Your task to perform on an android device: What is the news today? Image 0: 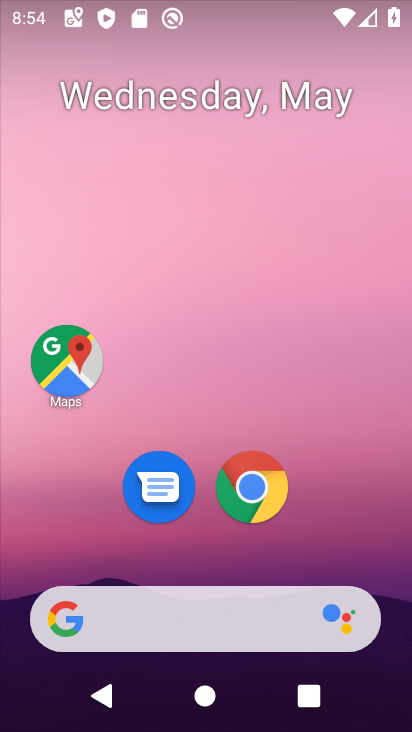
Step 0: click (233, 612)
Your task to perform on an android device: What is the news today? Image 1: 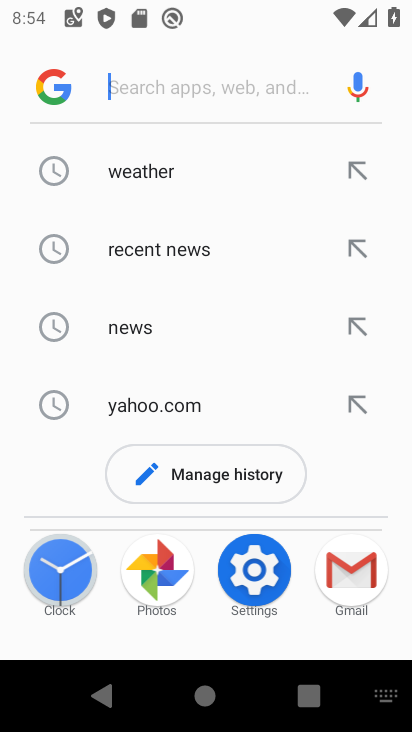
Step 1: click (123, 321)
Your task to perform on an android device: What is the news today? Image 2: 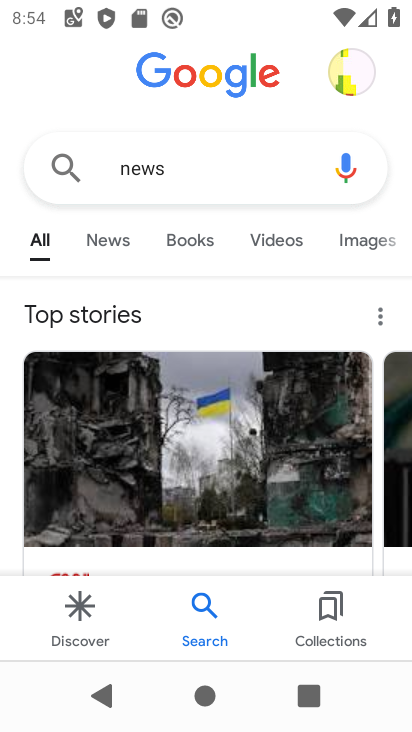
Step 2: task complete